Your task to perform on an android device: Open Youtube and go to "Your channel" Image 0: 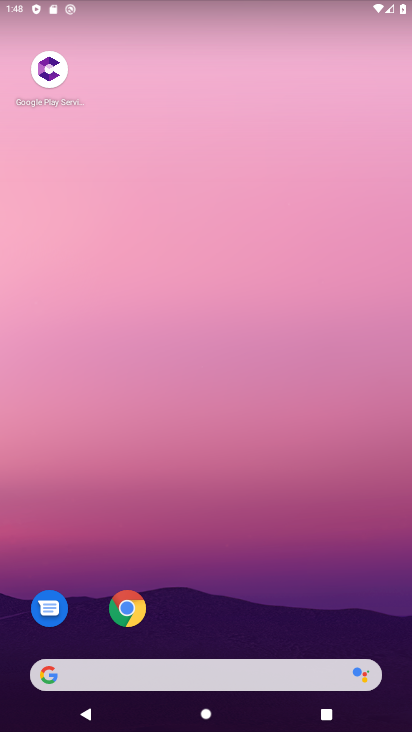
Step 0: drag from (249, 642) to (309, 218)
Your task to perform on an android device: Open Youtube and go to "Your channel" Image 1: 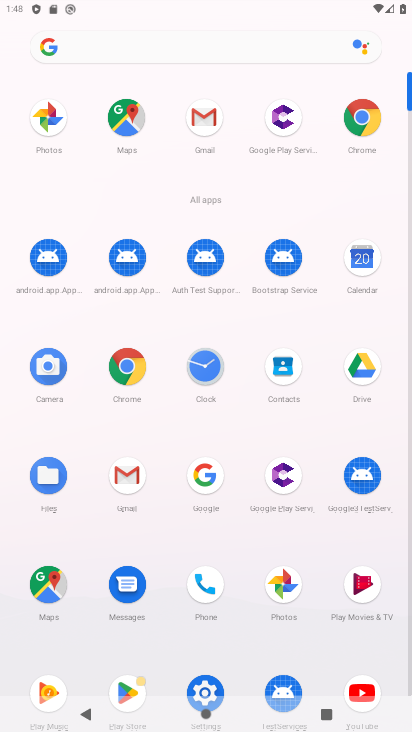
Step 1: click (353, 672)
Your task to perform on an android device: Open Youtube and go to "Your channel" Image 2: 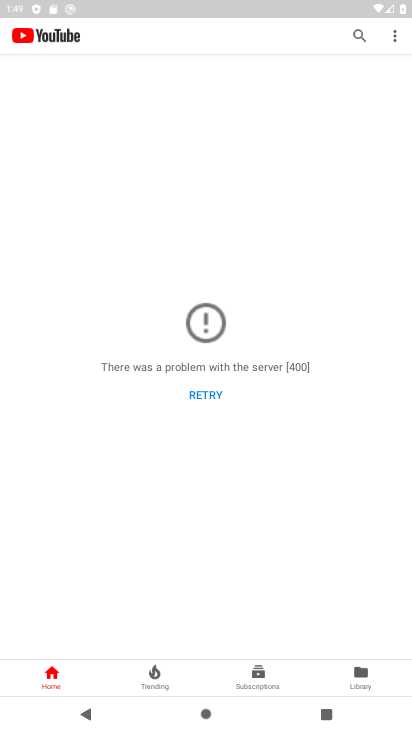
Step 2: click (373, 682)
Your task to perform on an android device: Open Youtube and go to "Your channel" Image 3: 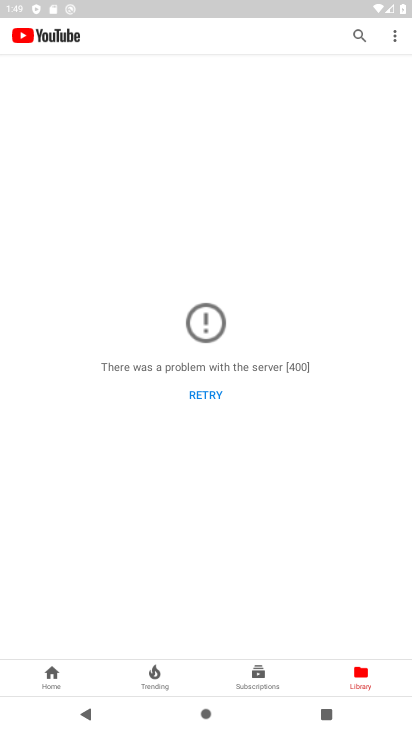
Step 3: task complete